Your task to perform on an android device: Show me popular videos on Youtube Image 0: 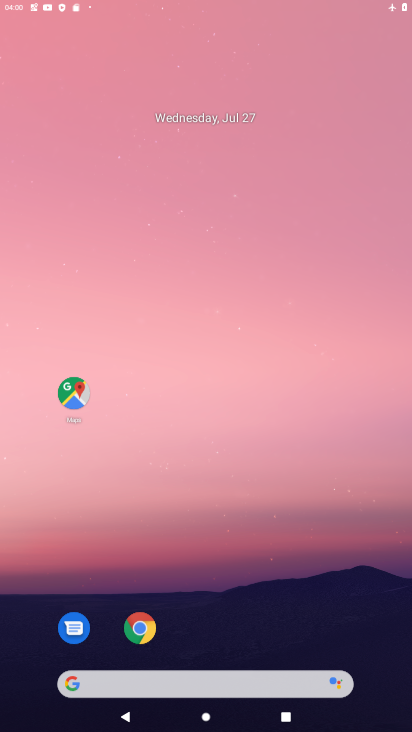
Step 0: press home button
Your task to perform on an android device: Show me popular videos on Youtube Image 1: 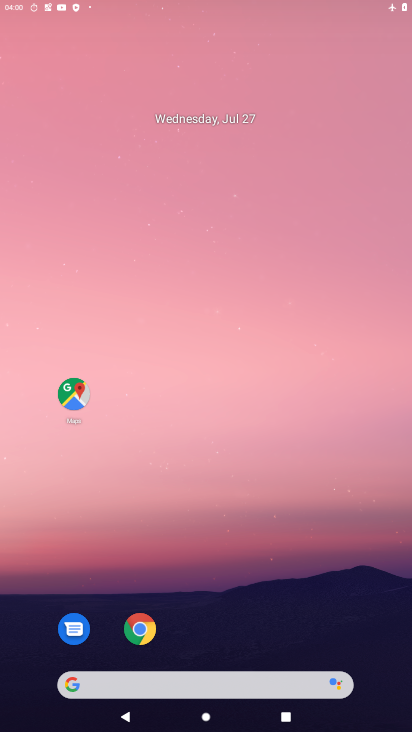
Step 1: drag from (264, 609) to (224, 122)
Your task to perform on an android device: Show me popular videos on Youtube Image 2: 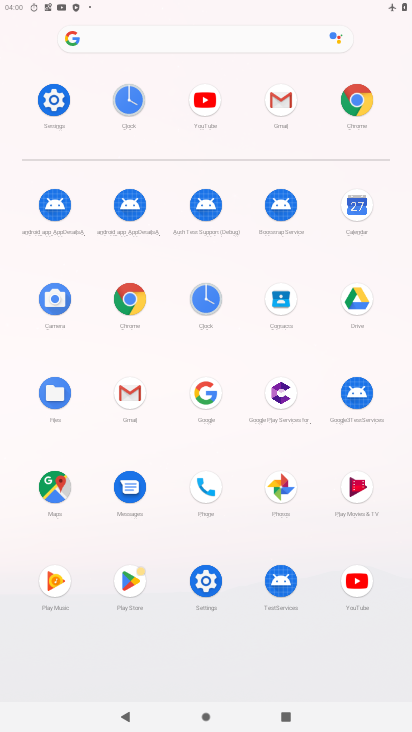
Step 2: click (209, 103)
Your task to perform on an android device: Show me popular videos on Youtube Image 3: 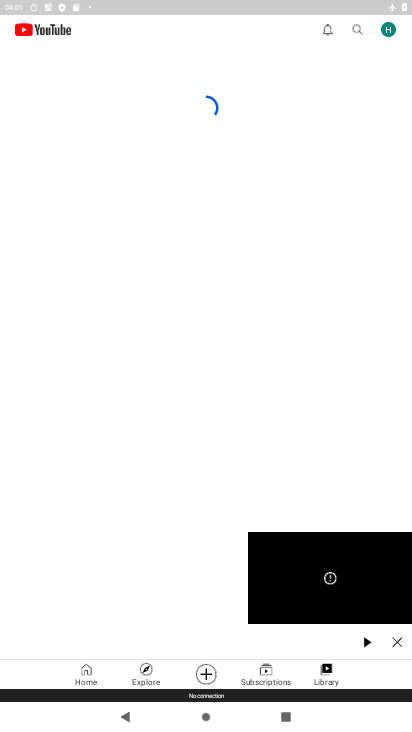
Step 3: task complete